Your task to perform on an android device: Show me popular videos on Youtube Image 0: 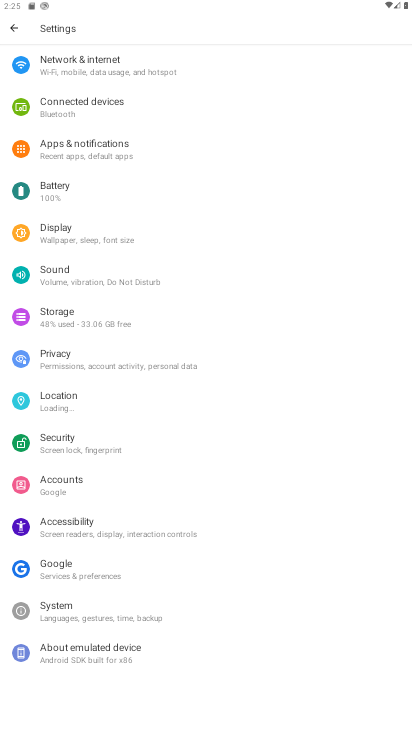
Step 0: press home button
Your task to perform on an android device: Show me popular videos on Youtube Image 1: 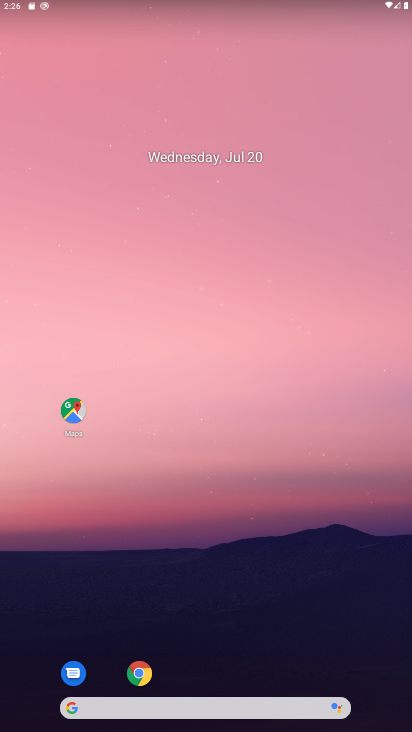
Step 1: drag from (231, 672) to (267, 18)
Your task to perform on an android device: Show me popular videos on Youtube Image 2: 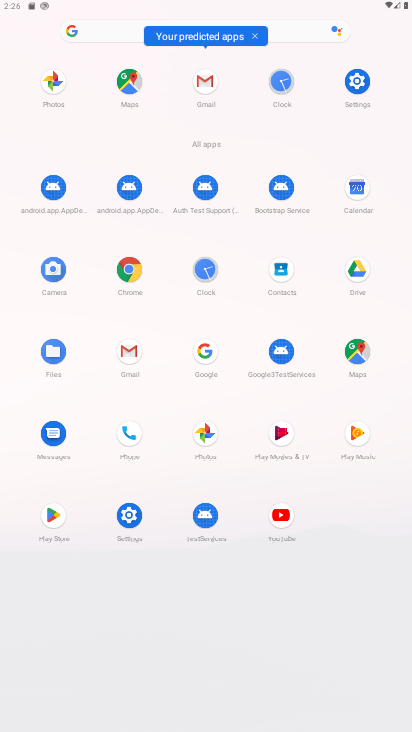
Step 2: click (282, 521)
Your task to perform on an android device: Show me popular videos on Youtube Image 3: 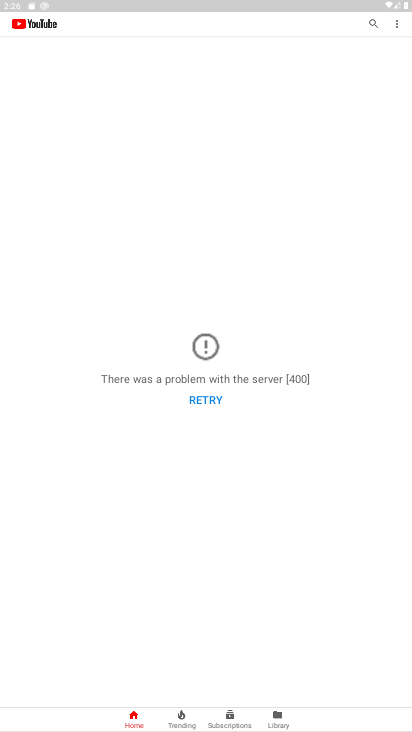
Step 3: click (199, 399)
Your task to perform on an android device: Show me popular videos on Youtube Image 4: 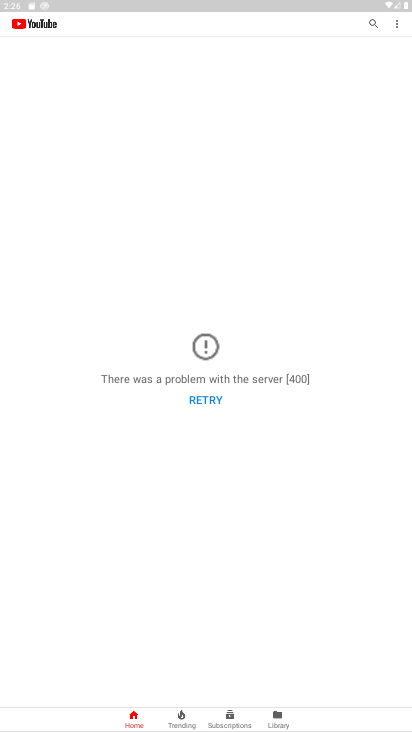
Step 4: click (200, 399)
Your task to perform on an android device: Show me popular videos on Youtube Image 5: 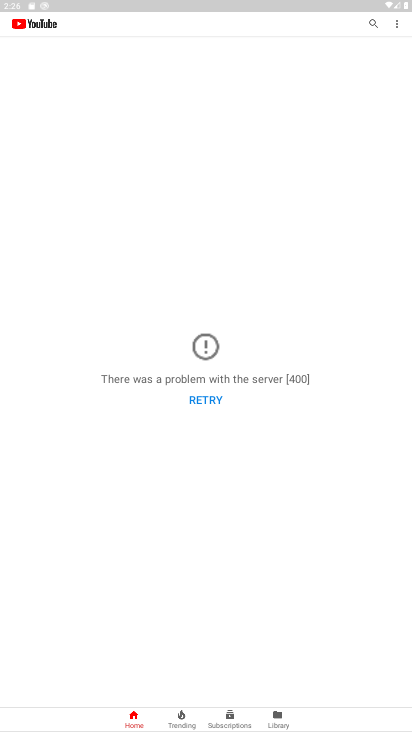
Step 5: click (201, 399)
Your task to perform on an android device: Show me popular videos on Youtube Image 6: 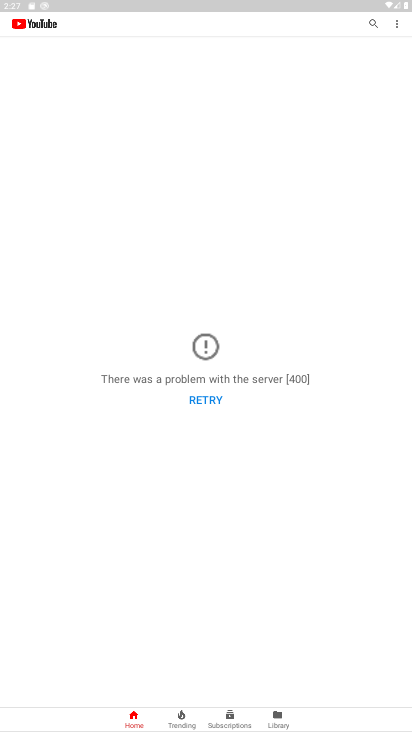
Step 6: task complete